Your task to perform on an android device: empty trash in the gmail app Image 0: 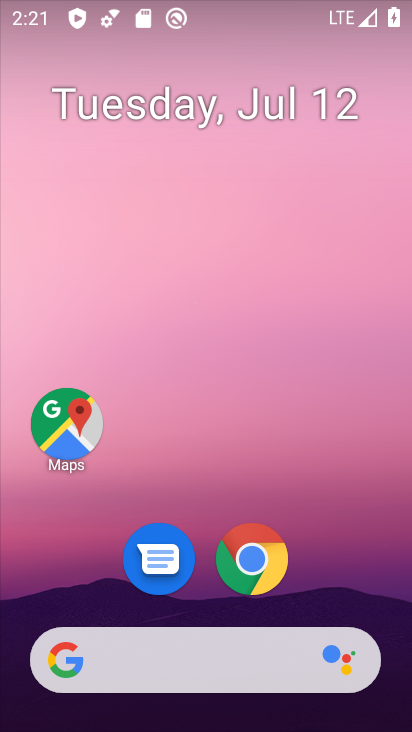
Step 0: drag from (345, 591) to (370, 272)
Your task to perform on an android device: empty trash in the gmail app Image 1: 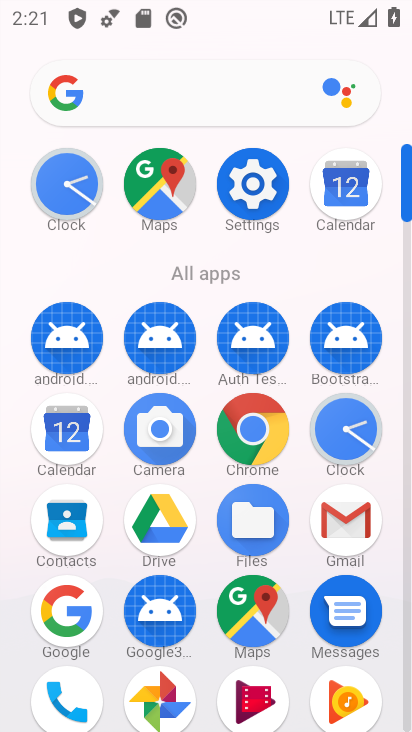
Step 1: click (354, 525)
Your task to perform on an android device: empty trash in the gmail app Image 2: 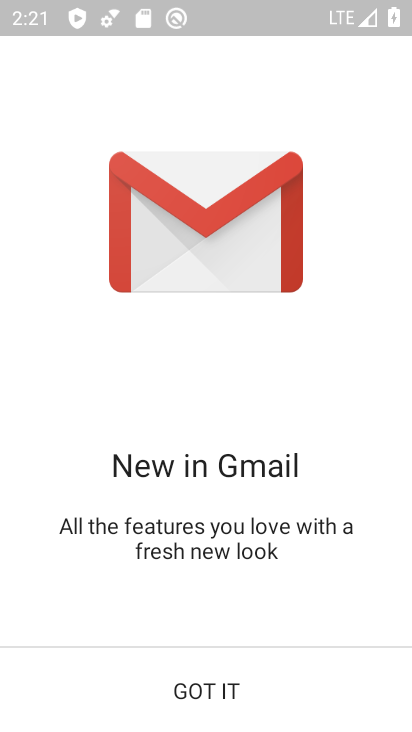
Step 2: click (312, 691)
Your task to perform on an android device: empty trash in the gmail app Image 3: 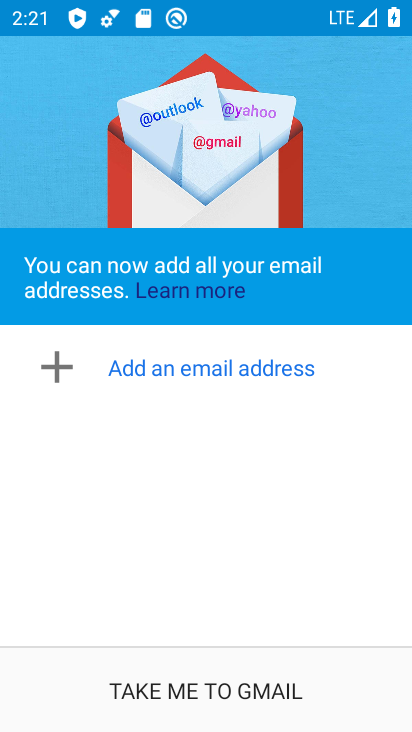
Step 3: click (328, 687)
Your task to perform on an android device: empty trash in the gmail app Image 4: 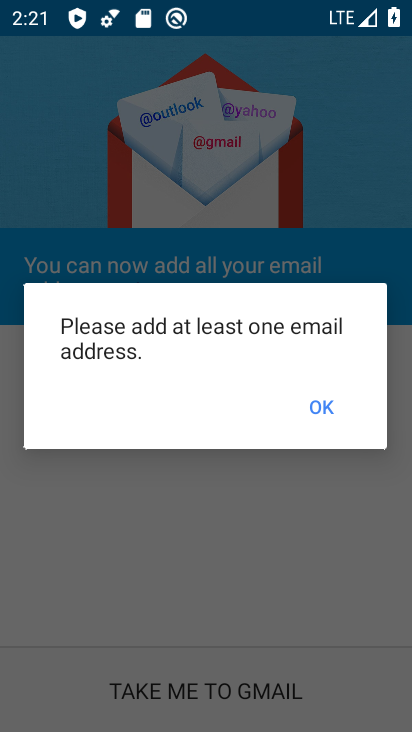
Step 4: task complete